Your task to perform on an android device: turn on priority inbox in the gmail app Image 0: 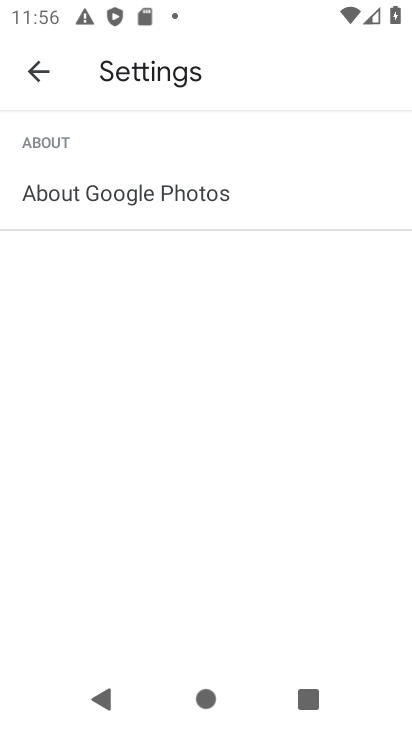
Step 0: press home button
Your task to perform on an android device: turn on priority inbox in the gmail app Image 1: 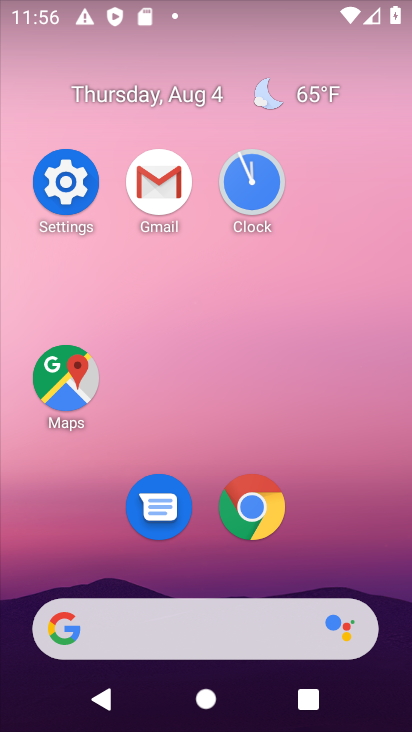
Step 1: click (159, 182)
Your task to perform on an android device: turn on priority inbox in the gmail app Image 2: 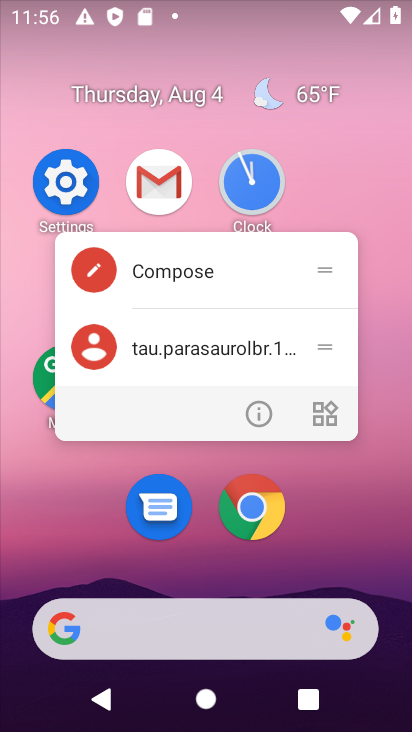
Step 2: click (159, 182)
Your task to perform on an android device: turn on priority inbox in the gmail app Image 3: 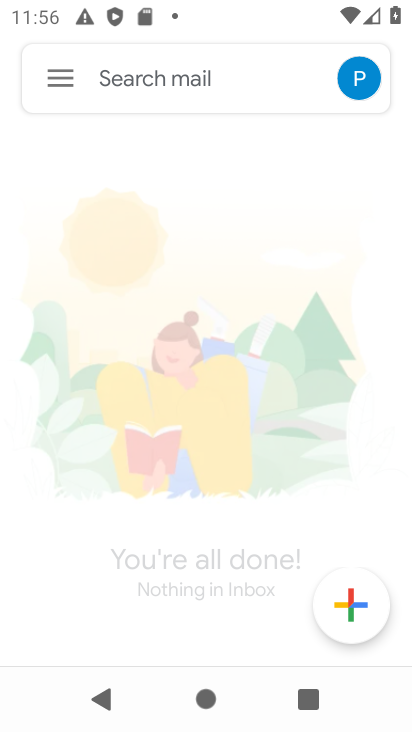
Step 3: click (48, 83)
Your task to perform on an android device: turn on priority inbox in the gmail app Image 4: 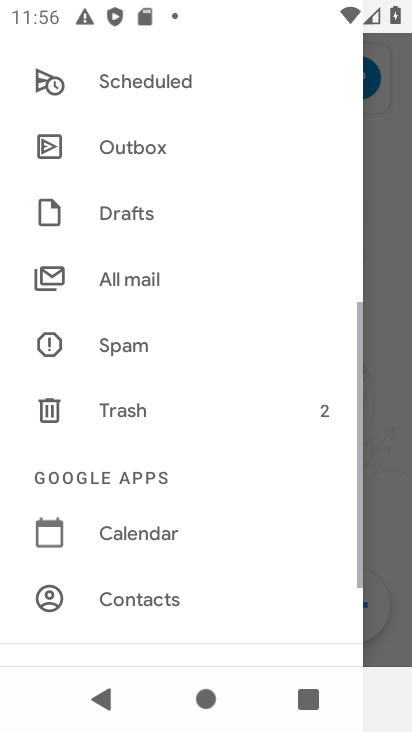
Step 4: drag from (174, 552) to (184, 160)
Your task to perform on an android device: turn on priority inbox in the gmail app Image 5: 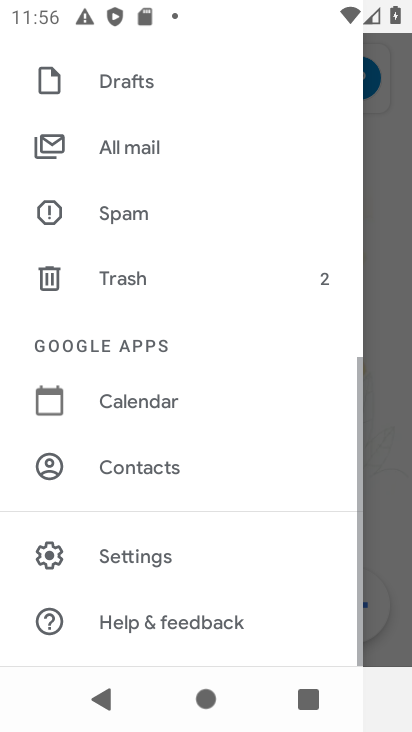
Step 5: click (140, 540)
Your task to perform on an android device: turn on priority inbox in the gmail app Image 6: 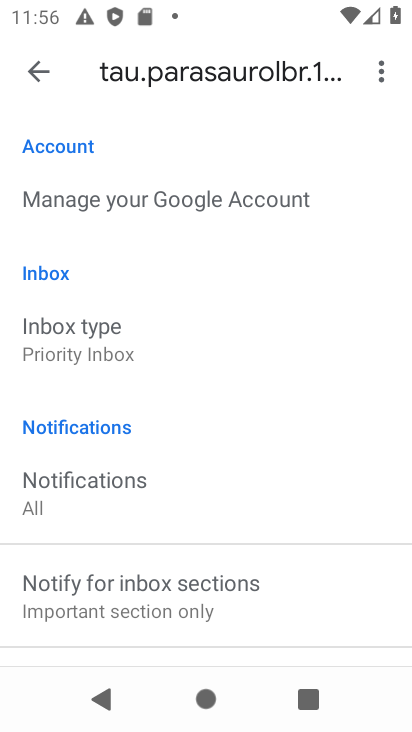
Step 6: task complete